Your task to perform on an android device: turn off picture-in-picture Image 0: 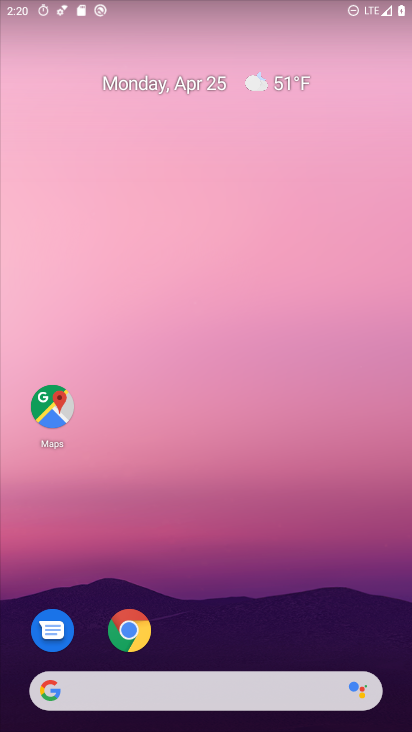
Step 0: drag from (213, 619) to (271, 178)
Your task to perform on an android device: turn off picture-in-picture Image 1: 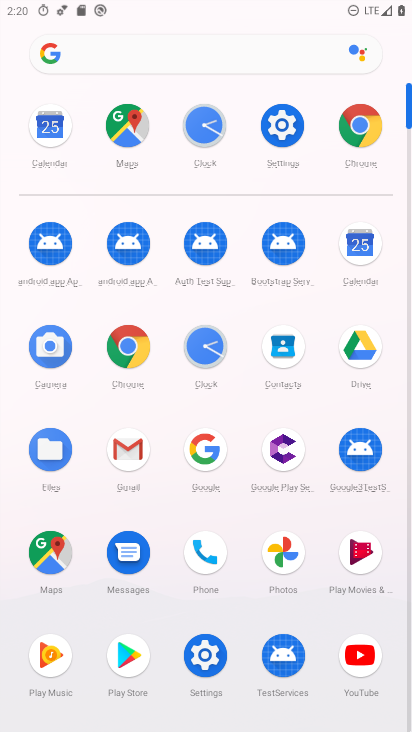
Step 1: click (295, 117)
Your task to perform on an android device: turn off picture-in-picture Image 2: 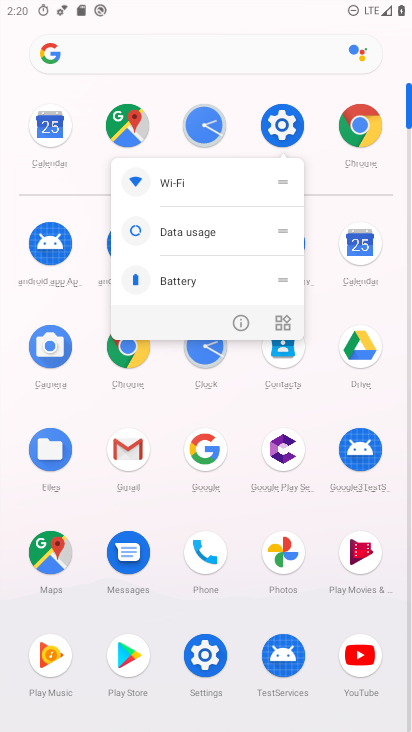
Step 2: click (254, 318)
Your task to perform on an android device: turn off picture-in-picture Image 3: 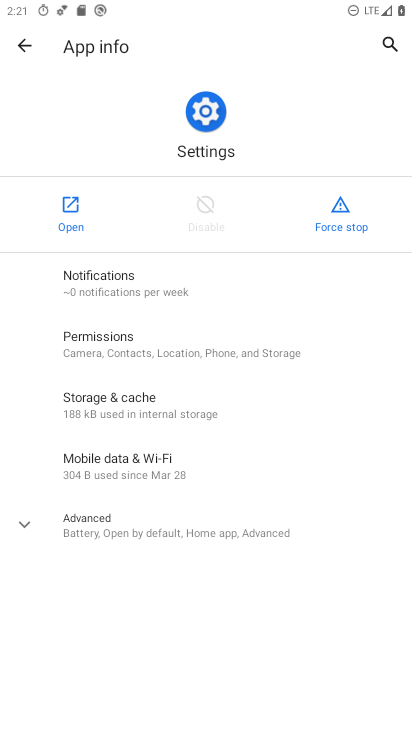
Step 3: click (63, 207)
Your task to perform on an android device: turn off picture-in-picture Image 4: 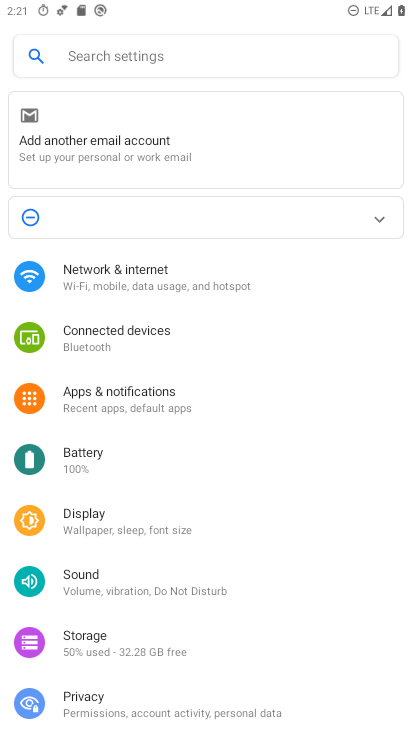
Step 4: click (150, 406)
Your task to perform on an android device: turn off picture-in-picture Image 5: 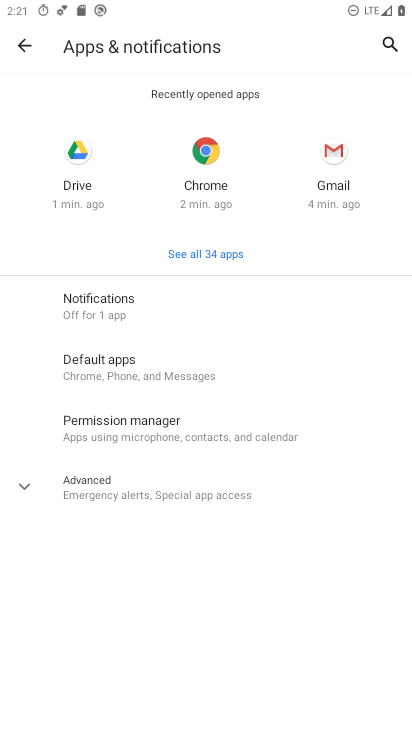
Step 5: click (165, 285)
Your task to perform on an android device: turn off picture-in-picture Image 6: 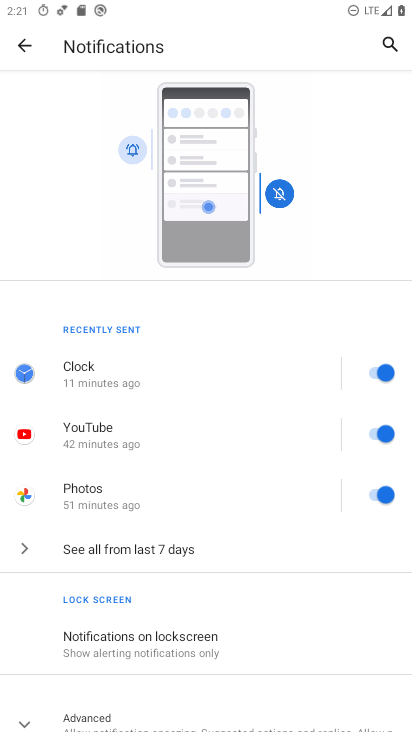
Step 6: click (5, 50)
Your task to perform on an android device: turn off picture-in-picture Image 7: 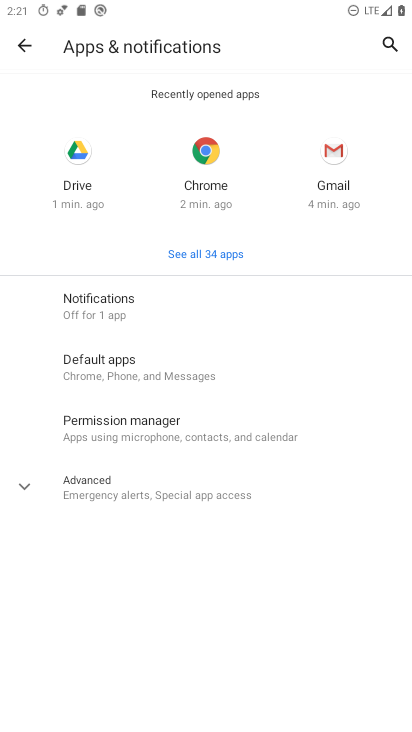
Step 7: click (132, 492)
Your task to perform on an android device: turn off picture-in-picture Image 8: 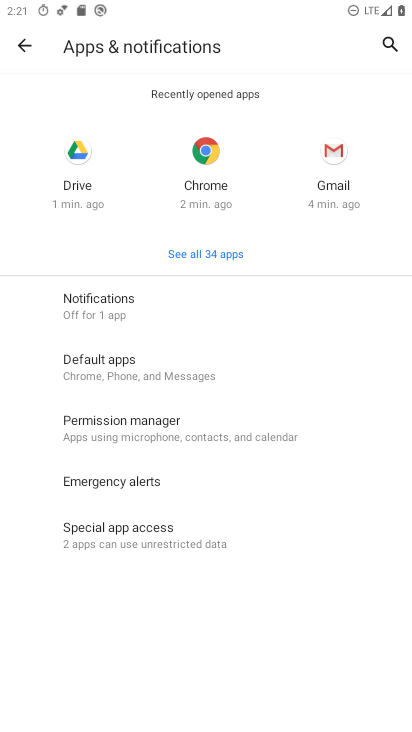
Step 8: drag from (229, 492) to (274, 167)
Your task to perform on an android device: turn off picture-in-picture Image 9: 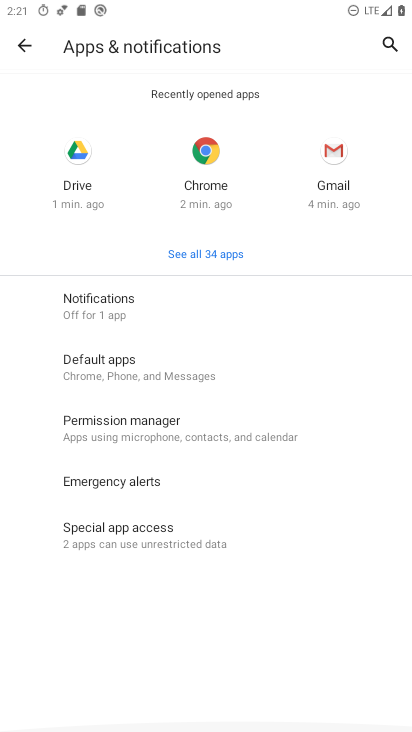
Step 9: click (224, 547)
Your task to perform on an android device: turn off picture-in-picture Image 10: 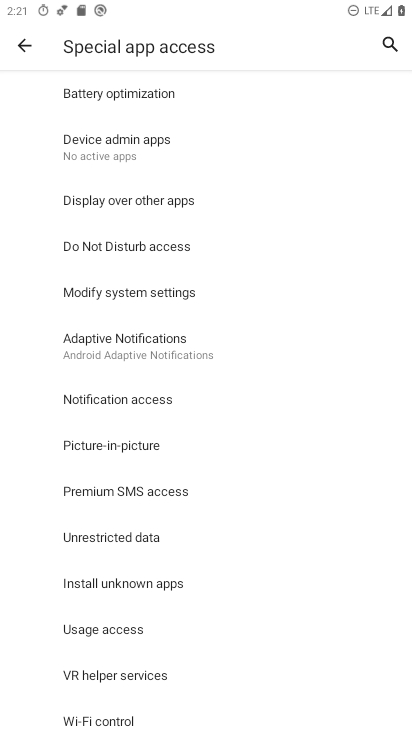
Step 10: click (132, 441)
Your task to perform on an android device: turn off picture-in-picture Image 11: 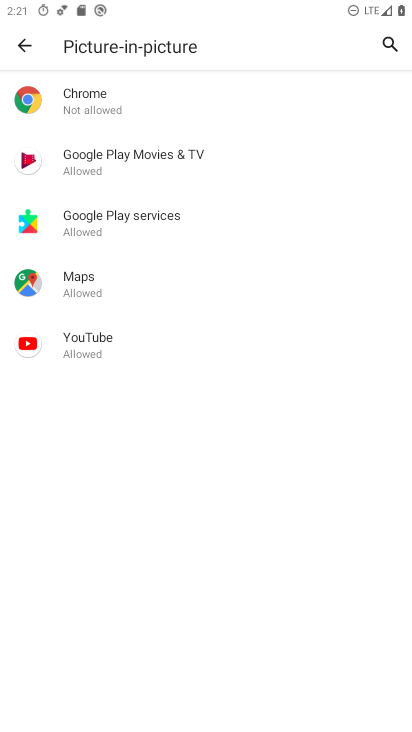
Step 11: click (211, 112)
Your task to perform on an android device: turn off picture-in-picture Image 12: 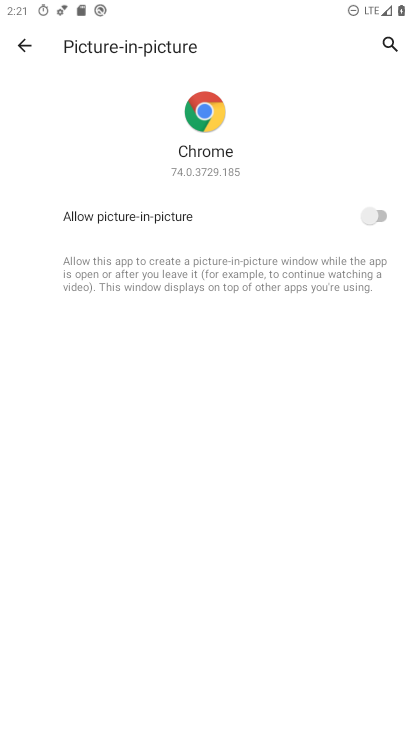
Step 12: click (36, 55)
Your task to perform on an android device: turn off picture-in-picture Image 13: 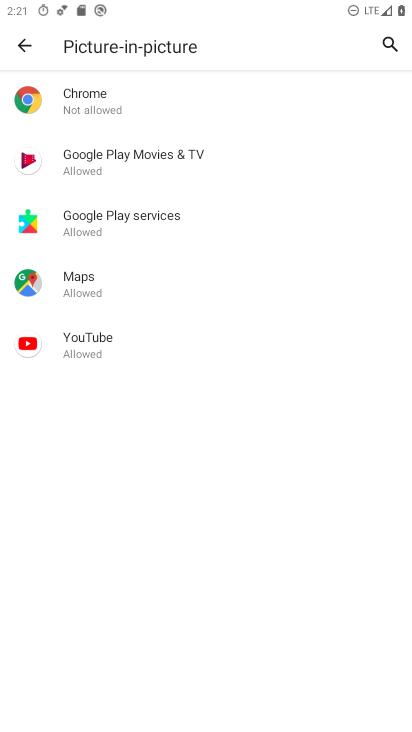
Step 13: click (256, 178)
Your task to perform on an android device: turn off picture-in-picture Image 14: 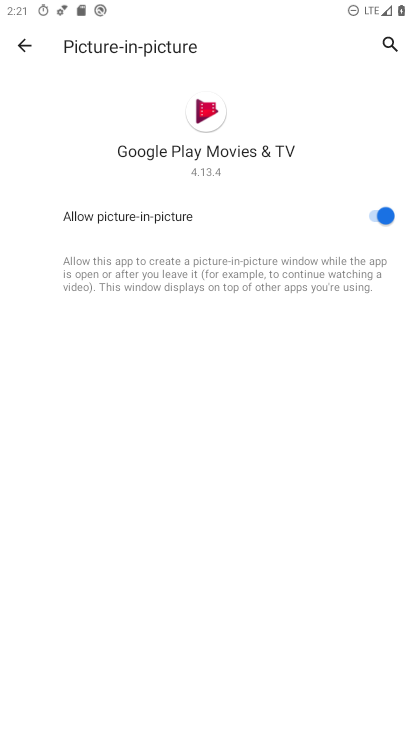
Step 14: click (369, 222)
Your task to perform on an android device: turn off picture-in-picture Image 15: 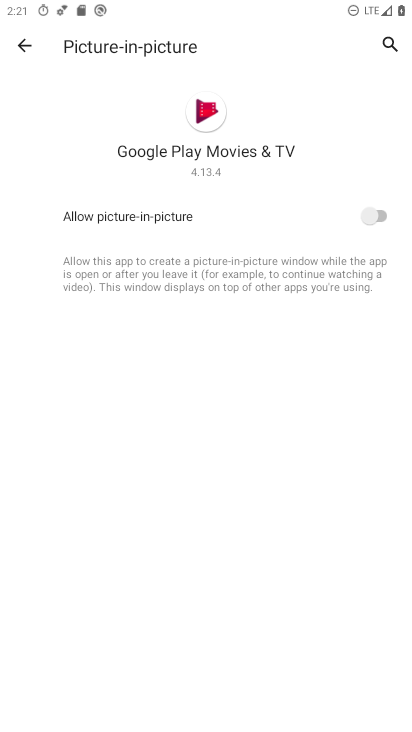
Step 15: task complete